Your task to perform on an android device: Open Reddit.com Image 0: 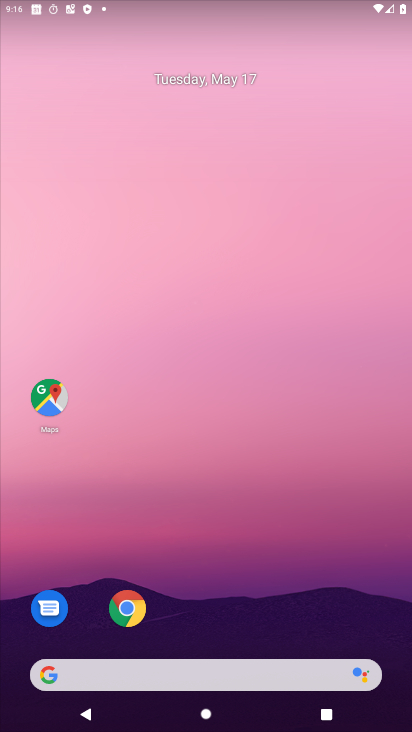
Step 0: drag from (312, 598) to (314, 232)
Your task to perform on an android device: Open Reddit.com Image 1: 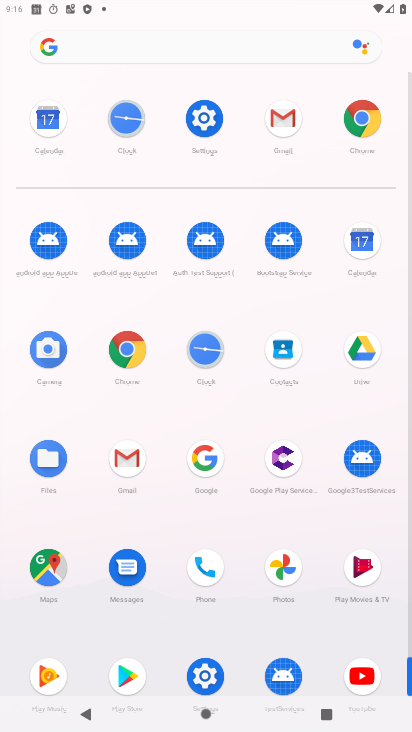
Step 1: click (124, 360)
Your task to perform on an android device: Open Reddit.com Image 2: 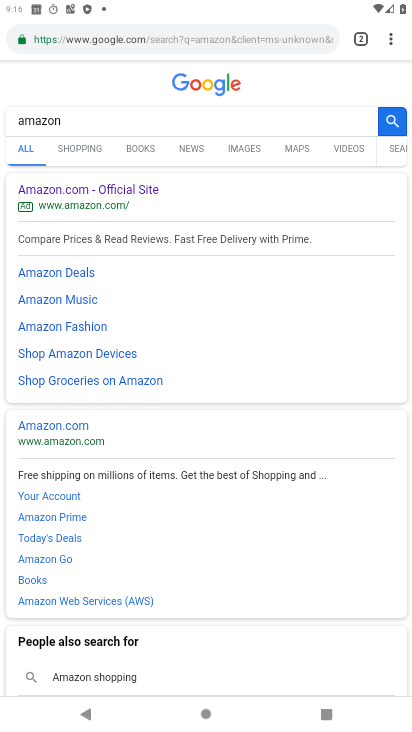
Step 2: click (202, 35)
Your task to perform on an android device: Open Reddit.com Image 3: 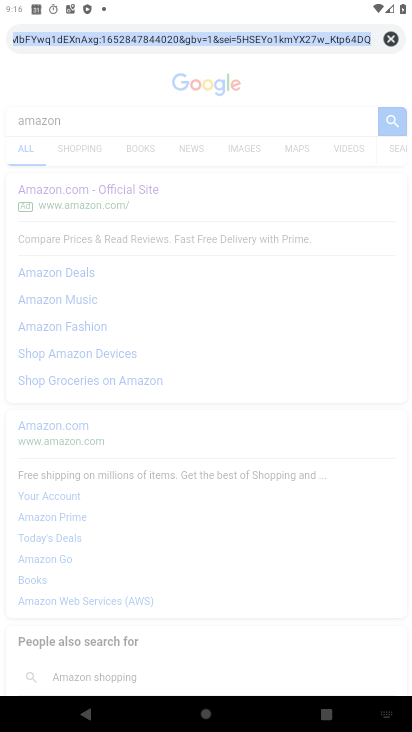
Step 3: click (390, 34)
Your task to perform on an android device: Open Reddit.com Image 4: 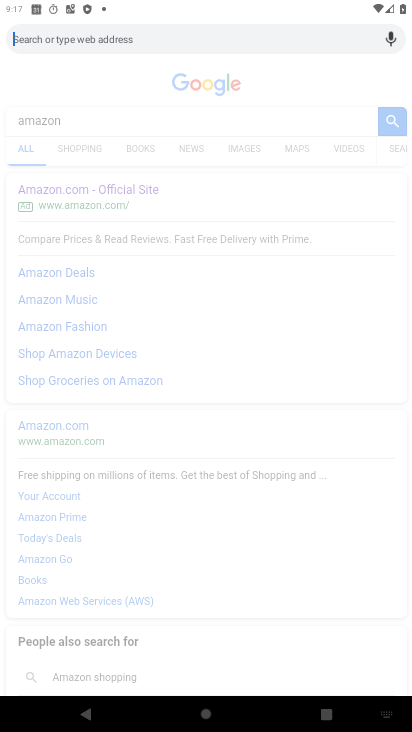
Step 4: type "reddit.com"
Your task to perform on an android device: Open Reddit.com Image 5: 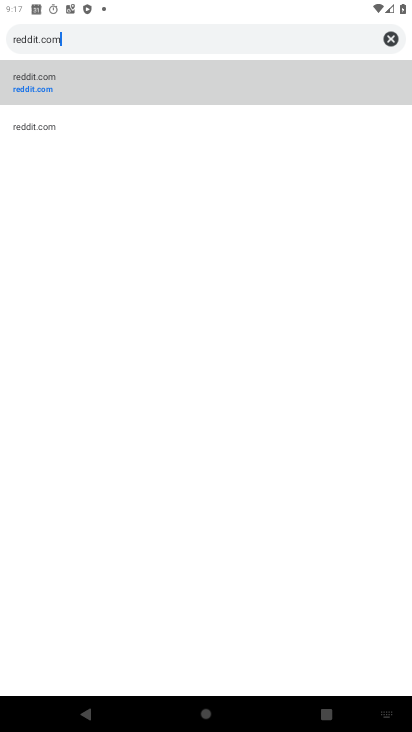
Step 5: click (46, 95)
Your task to perform on an android device: Open Reddit.com Image 6: 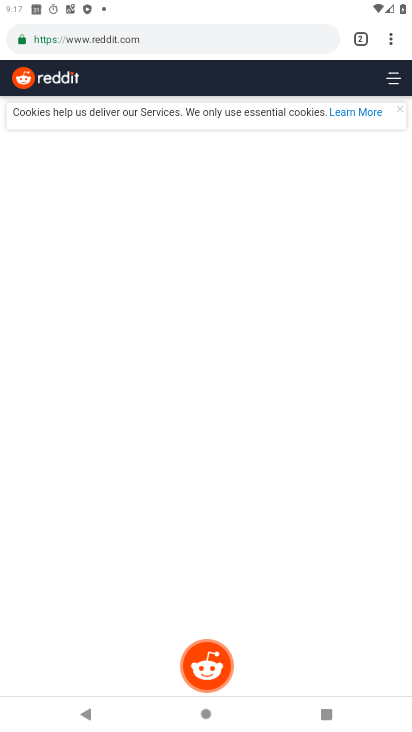
Step 6: task complete